Your task to perform on an android device: delete the emails in spam in the gmail app Image 0: 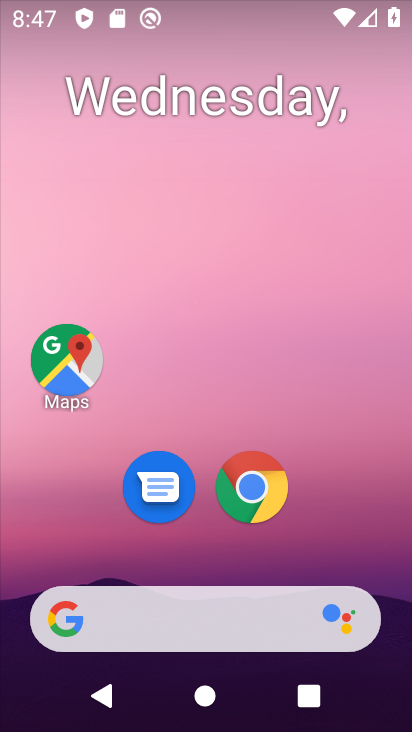
Step 0: drag from (356, 566) to (290, 122)
Your task to perform on an android device: delete the emails in spam in the gmail app Image 1: 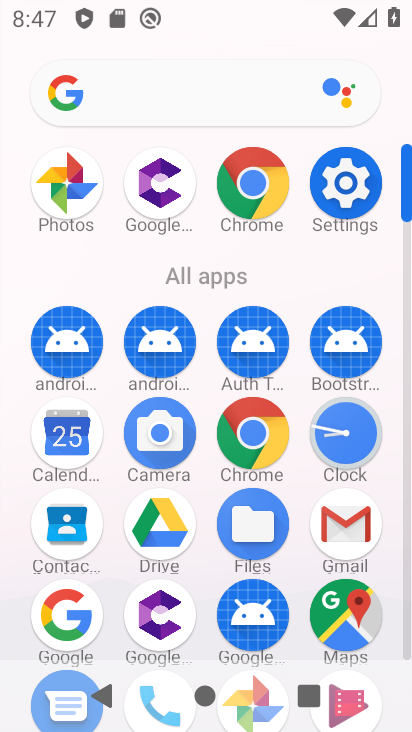
Step 1: click (350, 525)
Your task to perform on an android device: delete the emails in spam in the gmail app Image 2: 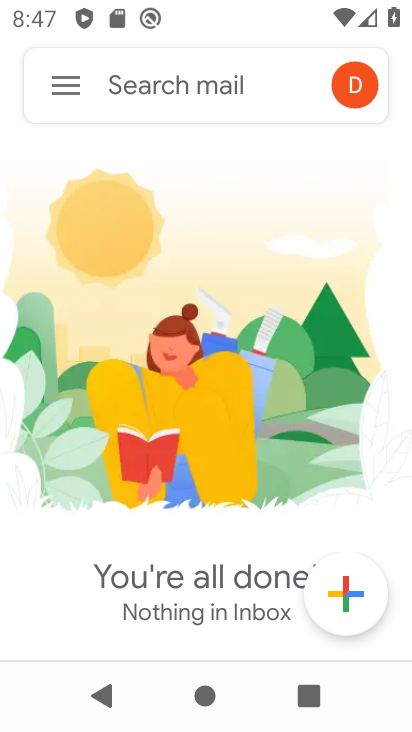
Step 2: click (59, 74)
Your task to perform on an android device: delete the emails in spam in the gmail app Image 3: 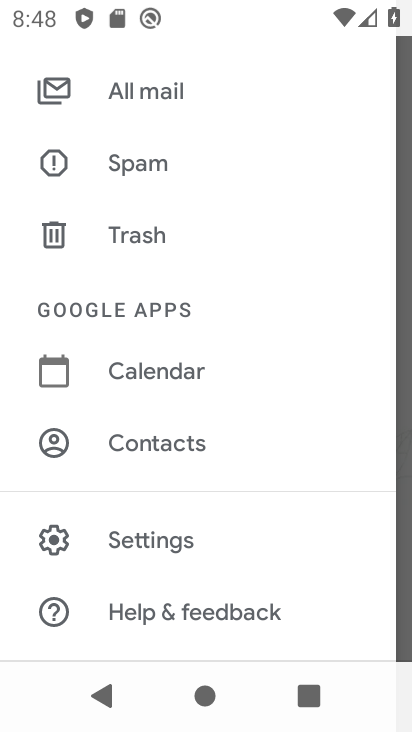
Step 3: click (137, 166)
Your task to perform on an android device: delete the emails in spam in the gmail app Image 4: 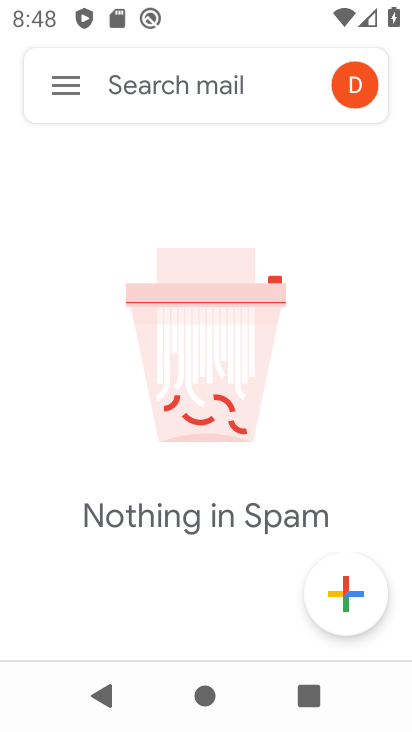
Step 4: task complete